Your task to perform on an android device: Open location settings Image 0: 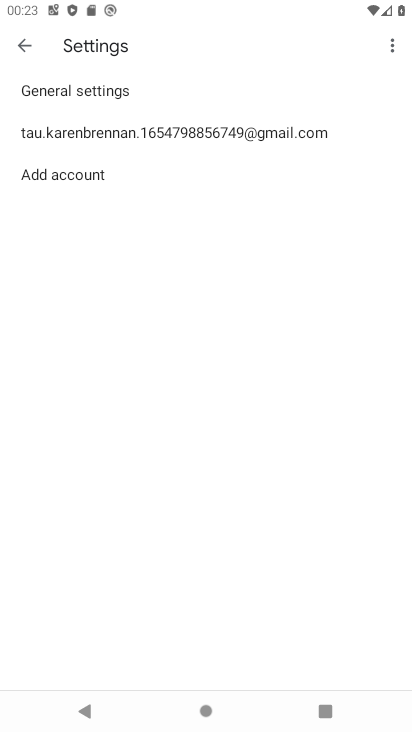
Step 0: drag from (22, 316) to (233, 146)
Your task to perform on an android device: Open location settings Image 1: 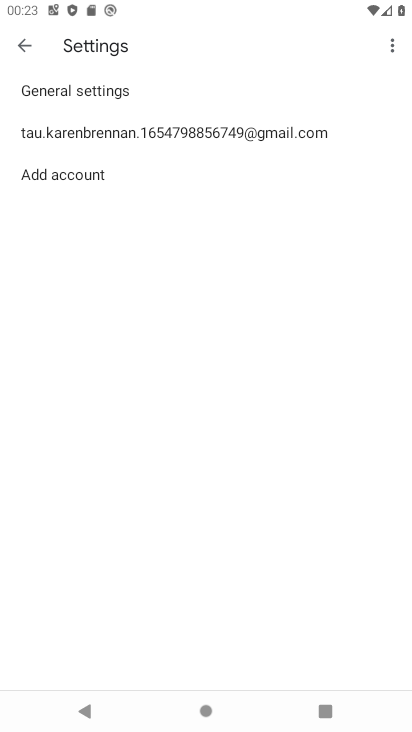
Step 1: press home button
Your task to perform on an android device: Open location settings Image 2: 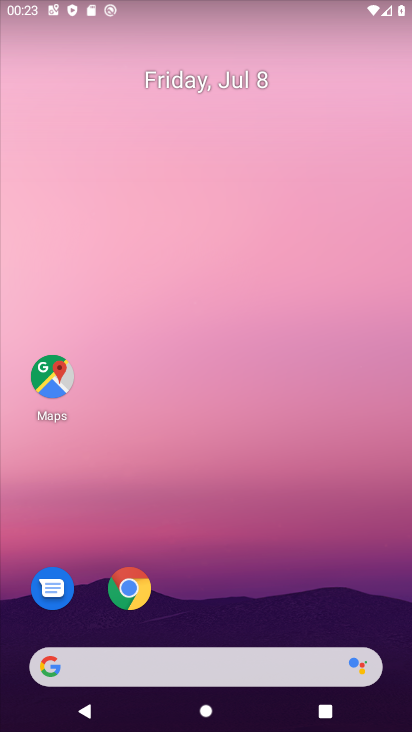
Step 2: drag from (161, 610) to (221, 188)
Your task to perform on an android device: Open location settings Image 3: 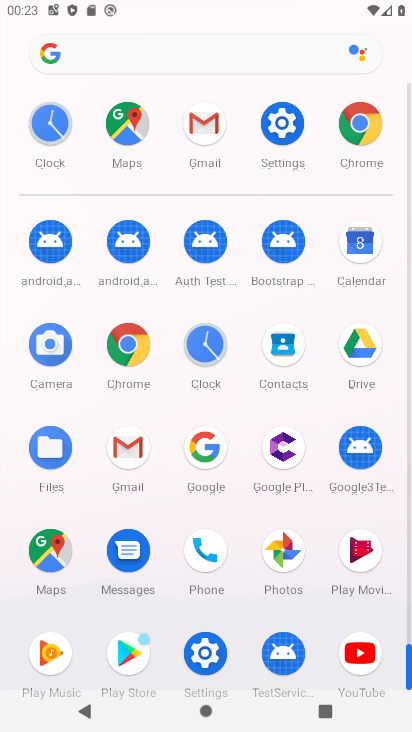
Step 3: click (267, 135)
Your task to perform on an android device: Open location settings Image 4: 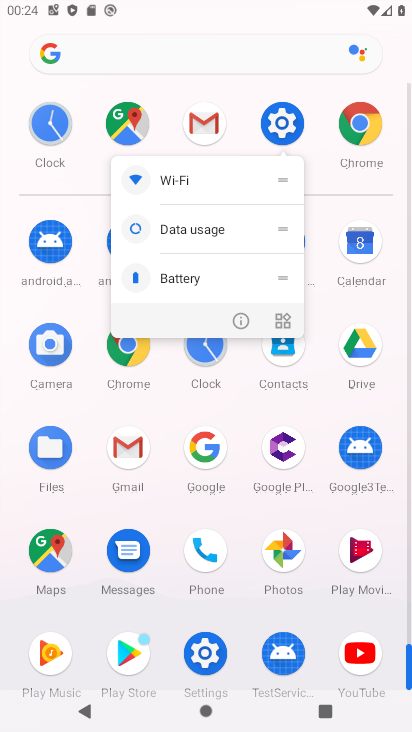
Step 4: click (248, 326)
Your task to perform on an android device: Open location settings Image 5: 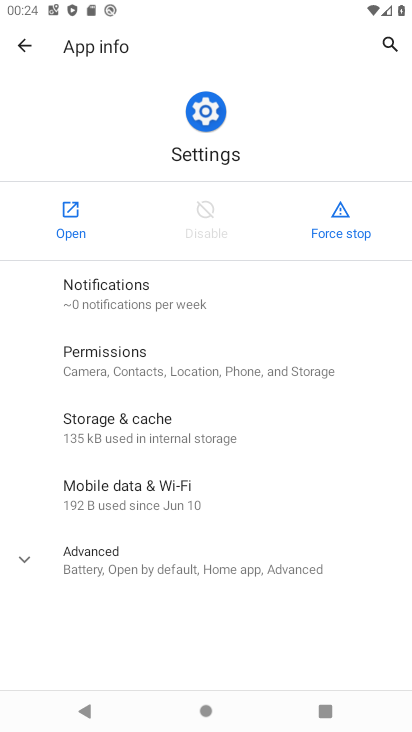
Step 5: click (77, 220)
Your task to perform on an android device: Open location settings Image 6: 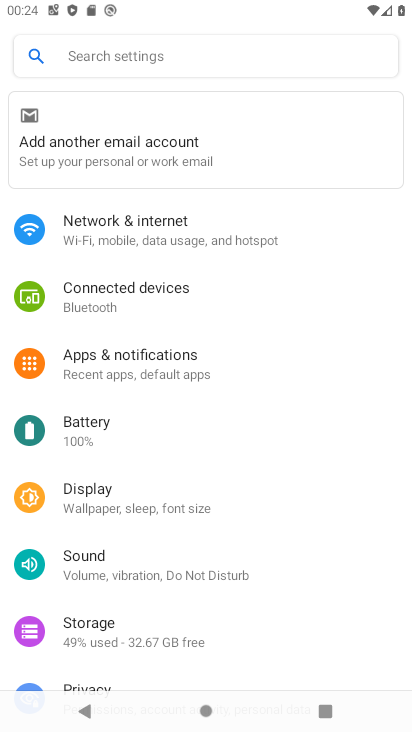
Step 6: drag from (236, 560) to (265, 235)
Your task to perform on an android device: Open location settings Image 7: 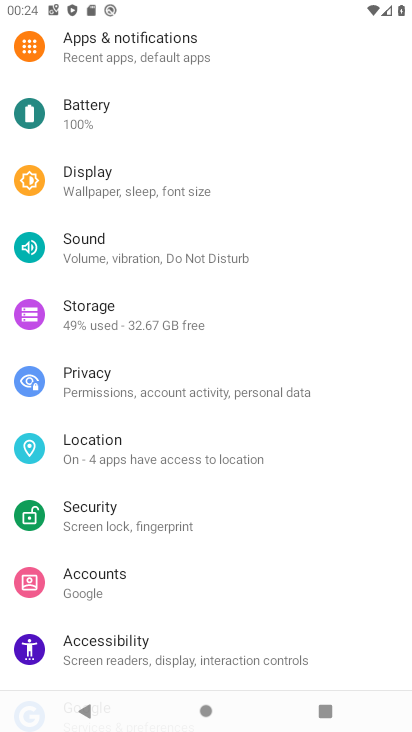
Step 7: click (153, 446)
Your task to perform on an android device: Open location settings Image 8: 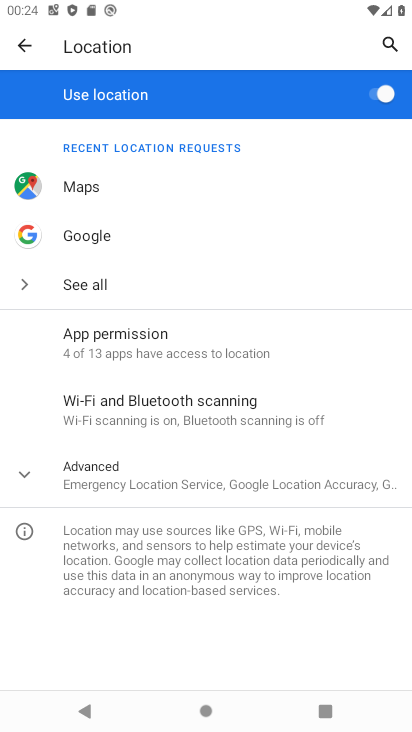
Step 8: click (139, 447)
Your task to perform on an android device: Open location settings Image 9: 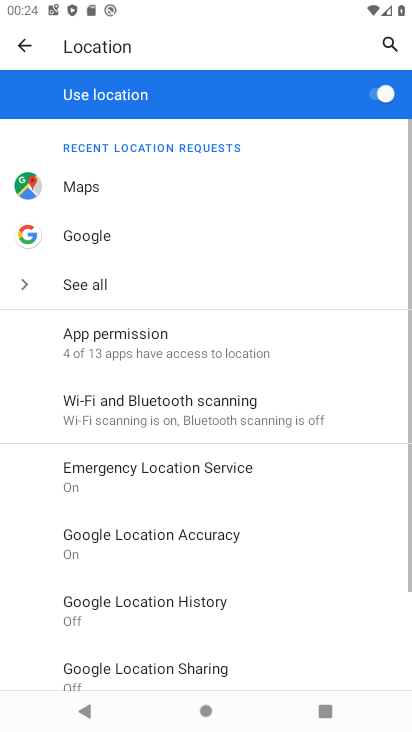
Step 9: drag from (145, 638) to (193, 249)
Your task to perform on an android device: Open location settings Image 10: 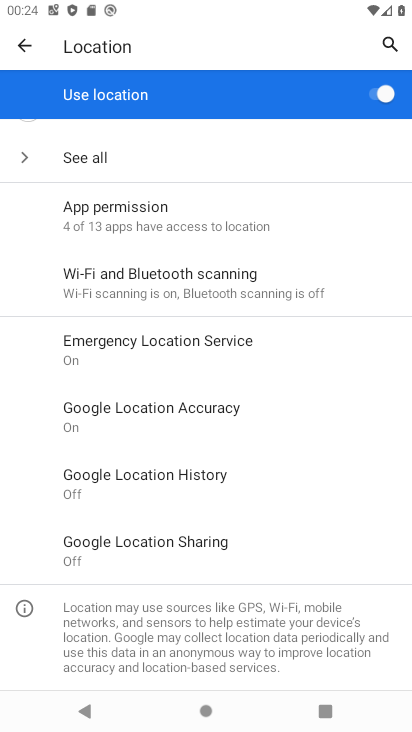
Step 10: drag from (209, 556) to (225, 340)
Your task to perform on an android device: Open location settings Image 11: 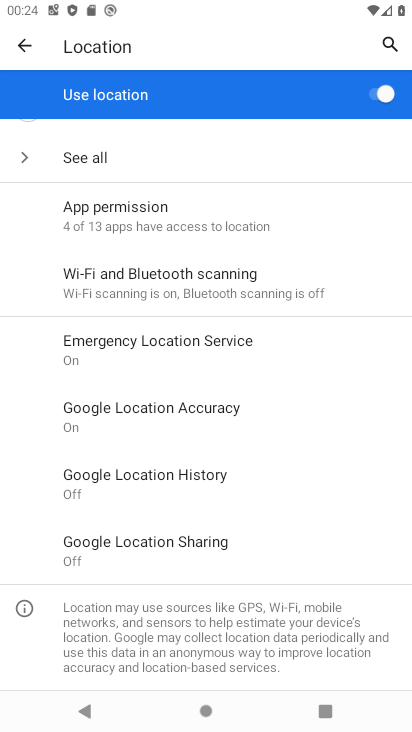
Step 11: drag from (183, 582) to (220, 277)
Your task to perform on an android device: Open location settings Image 12: 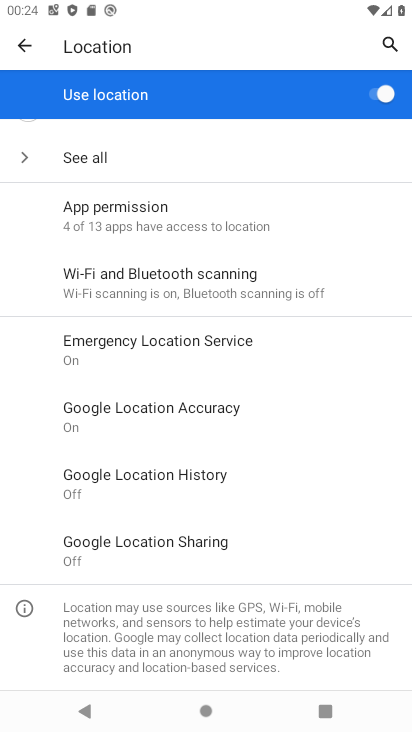
Step 12: drag from (217, 246) to (255, 721)
Your task to perform on an android device: Open location settings Image 13: 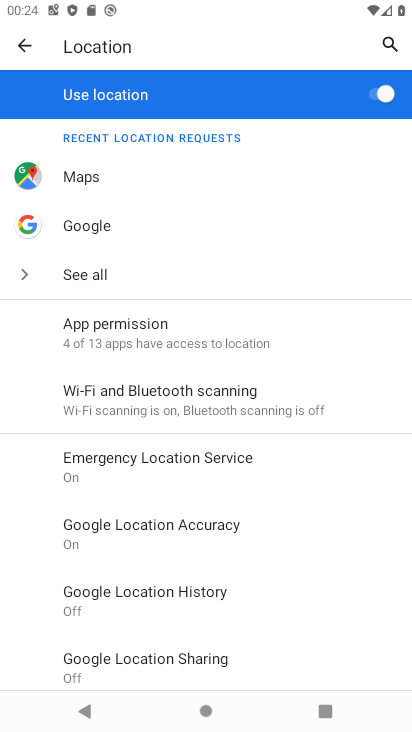
Step 13: click (29, 43)
Your task to perform on an android device: Open location settings Image 14: 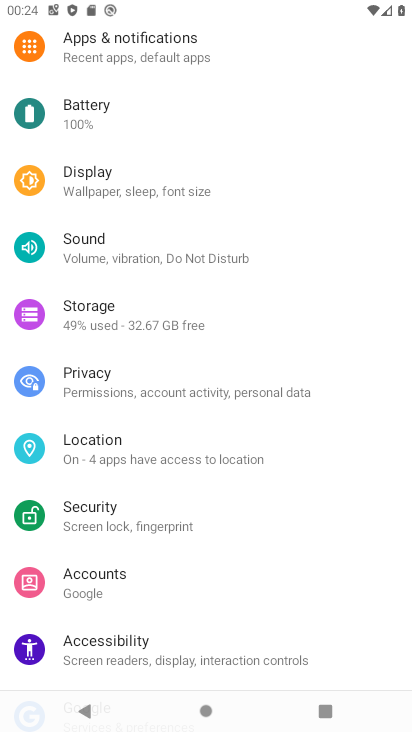
Step 14: task complete